Your task to perform on an android device: move a message to another label in the gmail app Image 0: 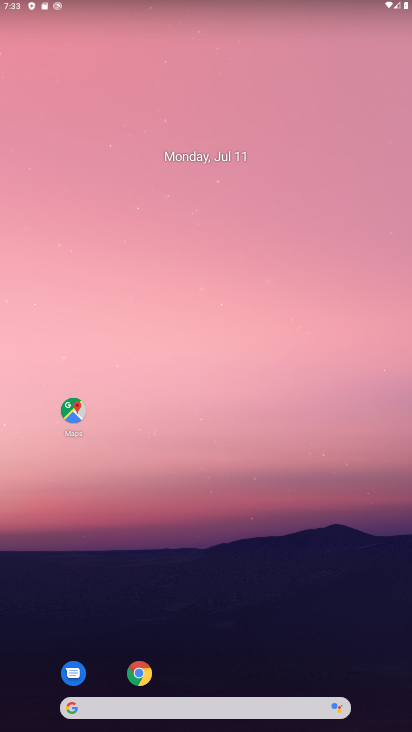
Step 0: drag from (214, 686) to (179, 331)
Your task to perform on an android device: move a message to another label in the gmail app Image 1: 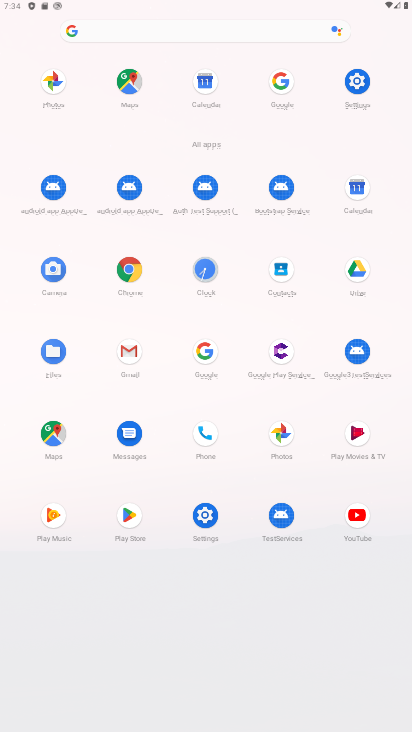
Step 1: click (135, 356)
Your task to perform on an android device: move a message to another label in the gmail app Image 2: 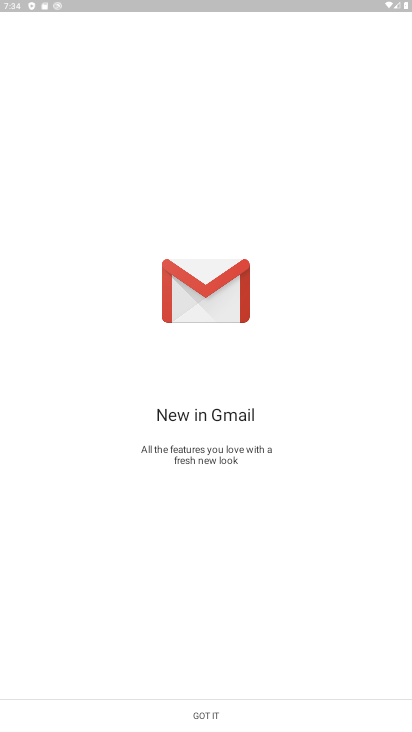
Step 2: click (236, 711)
Your task to perform on an android device: move a message to another label in the gmail app Image 3: 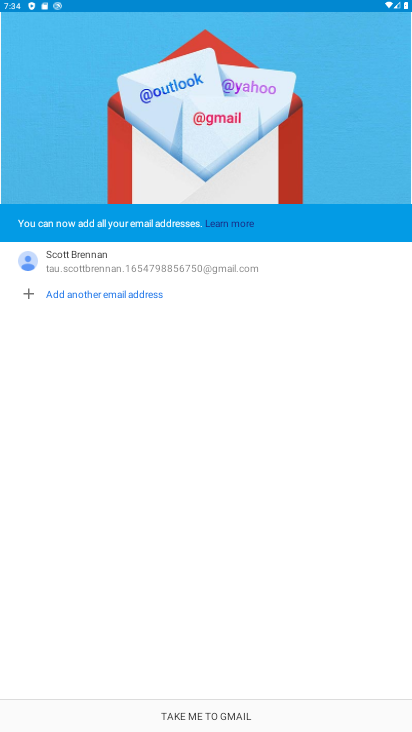
Step 3: click (236, 711)
Your task to perform on an android device: move a message to another label in the gmail app Image 4: 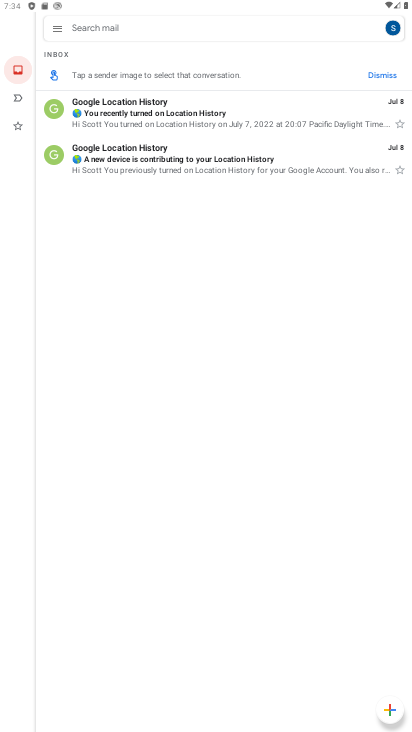
Step 4: click (164, 114)
Your task to perform on an android device: move a message to another label in the gmail app Image 5: 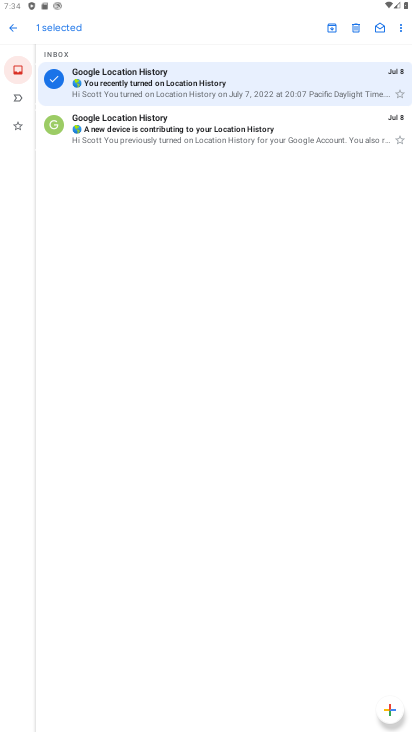
Step 5: click (402, 31)
Your task to perform on an android device: move a message to another label in the gmail app Image 6: 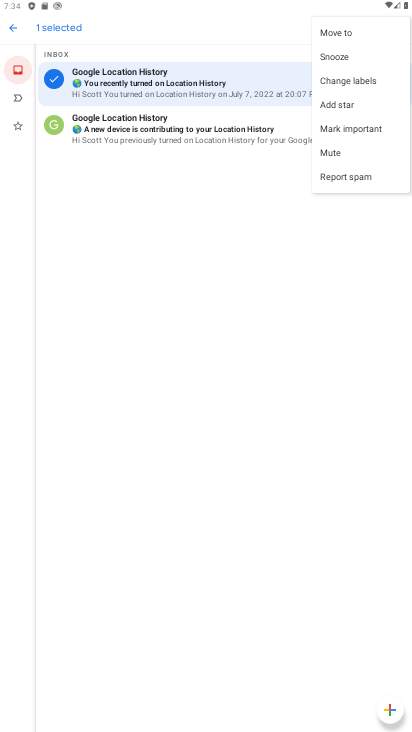
Step 6: click (370, 82)
Your task to perform on an android device: move a message to another label in the gmail app Image 7: 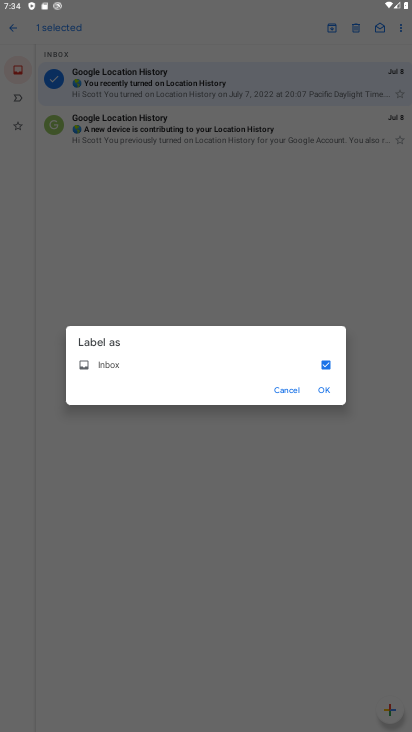
Step 7: click (318, 390)
Your task to perform on an android device: move a message to another label in the gmail app Image 8: 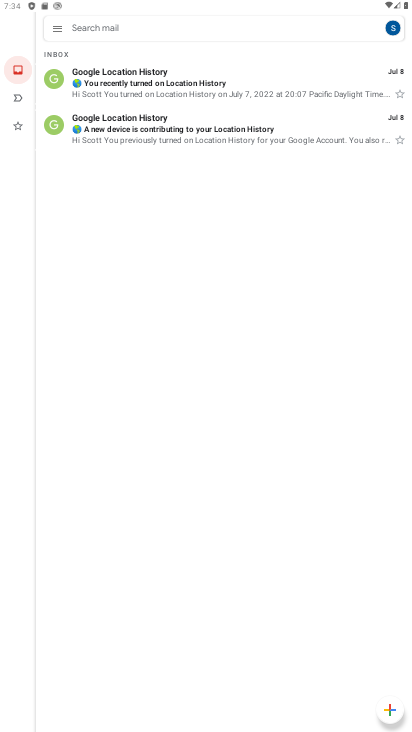
Step 8: task complete